Your task to perform on an android device: turn notification dots on Image 0: 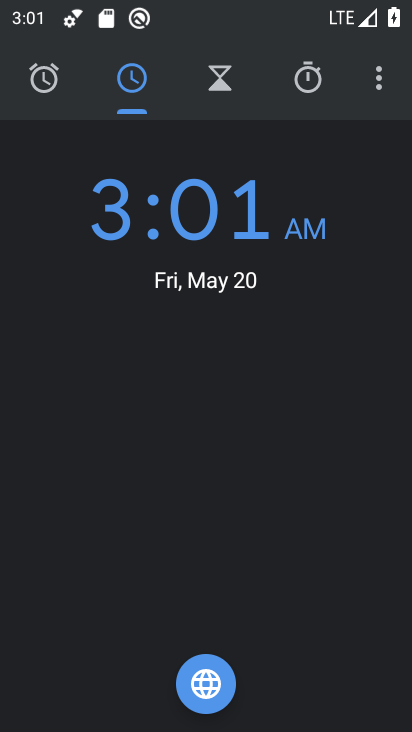
Step 0: press home button
Your task to perform on an android device: turn notification dots on Image 1: 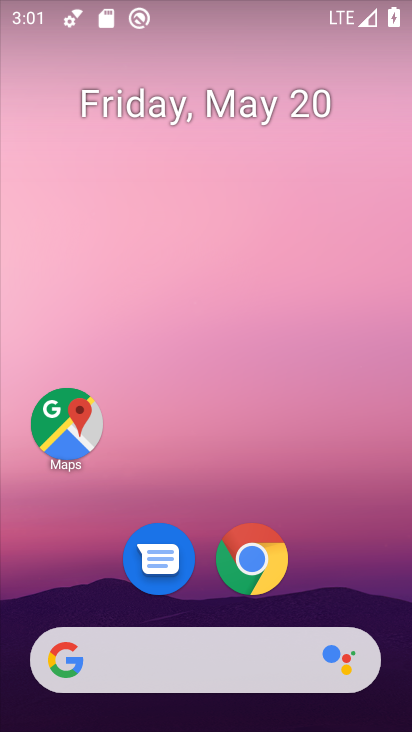
Step 1: drag from (323, 521) to (330, 42)
Your task to perform on an android device: turn notification dots on Image 2: 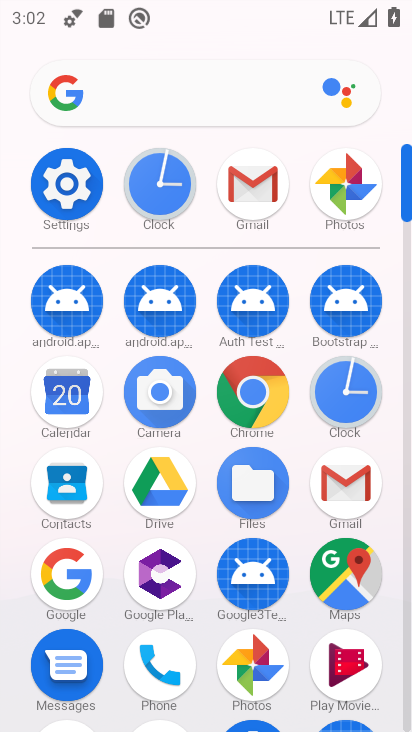
Step 2: click (67, 179)
Your task to perform on an android device: turn notification dots on Image 3: 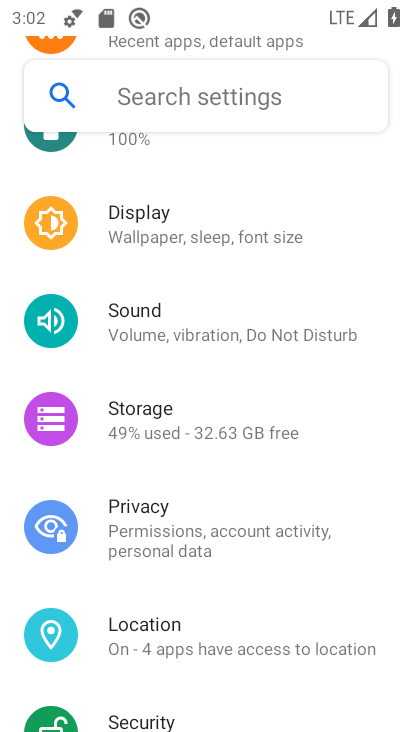
Step 3: drag from (211, 274) to (233, 575)
Your task to perform on an android device: turn notification dots on Image 4: 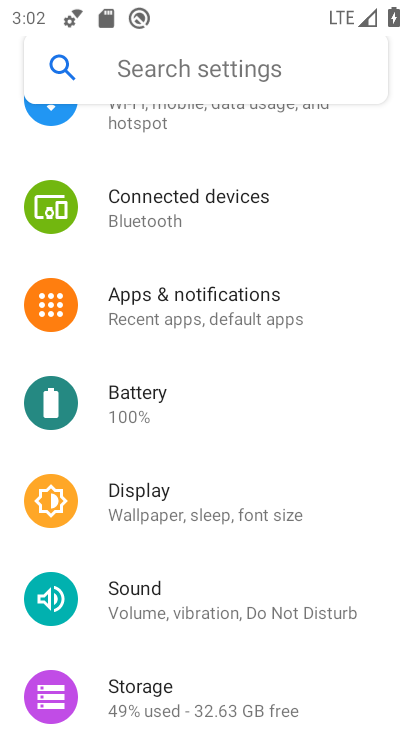
Step 4: click (229, 314)
Your task to perform on an android device: turn notification dots on Image 5: 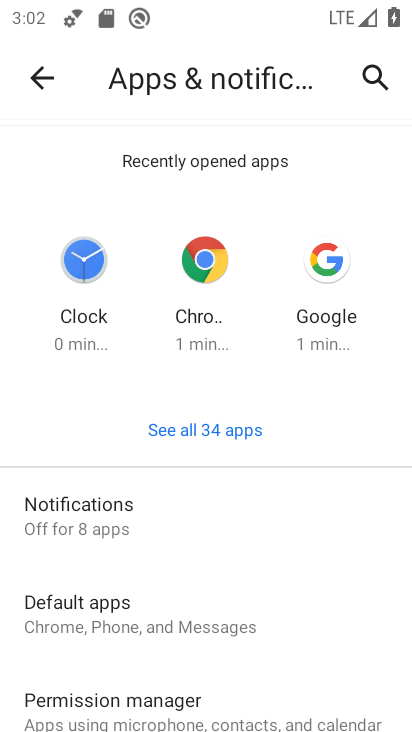
Step 5: click (172, 517)
Your task to perform on an android device: turn notification dots on Image 6: 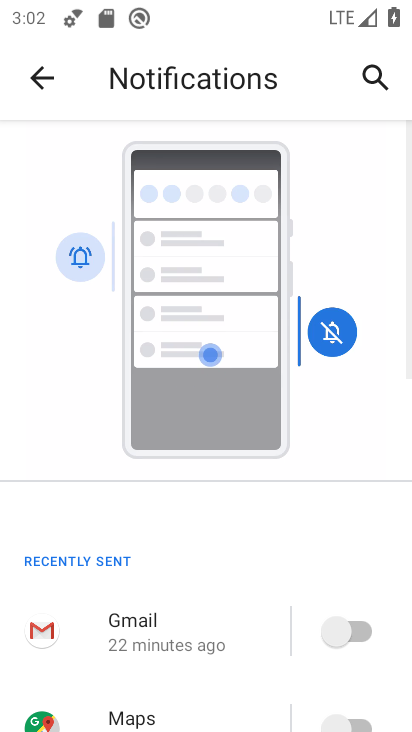
Step 6: drag from (187, 565) to (197, 145)
Your task to perform on an android device: turn notification dots on Image 7: 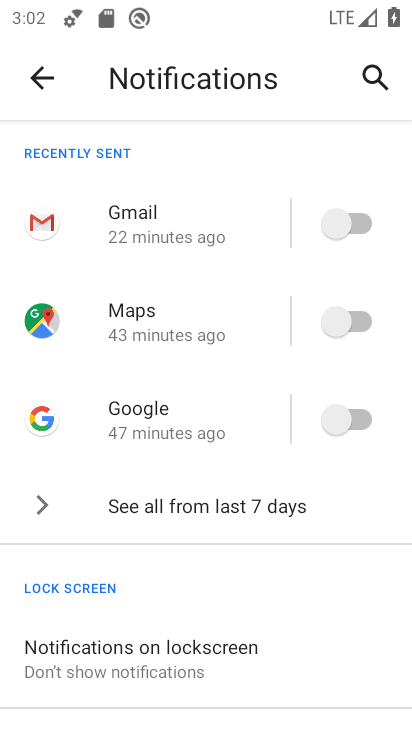
Step 7: drag from (222, 585) to (247, 259)
Your task to perform on an android device: turn notification dots on Image 8: 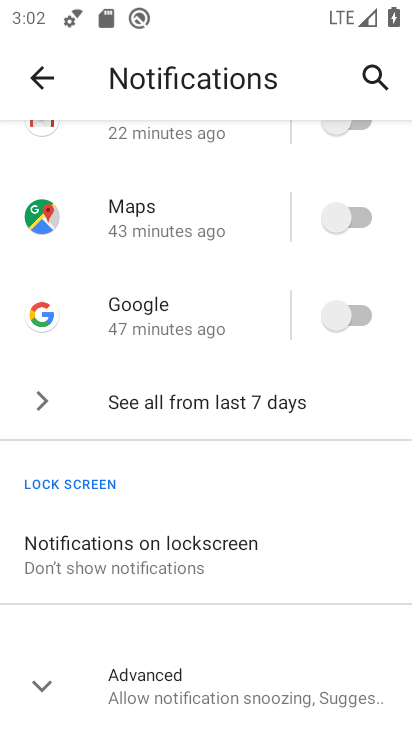
Step 8: click (45, 686)
Your task to perform on an android device: turn notification dots on Image 9: 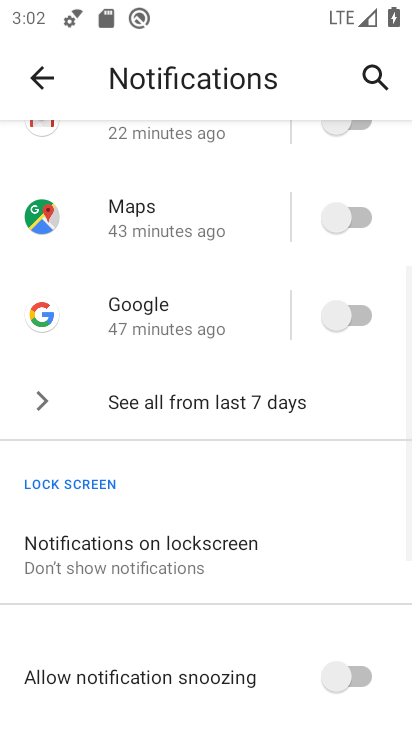
Step 9: drag from (244, 524) to (273, 186)
Your task to perform on an android device: turn notification dots on Image 10: 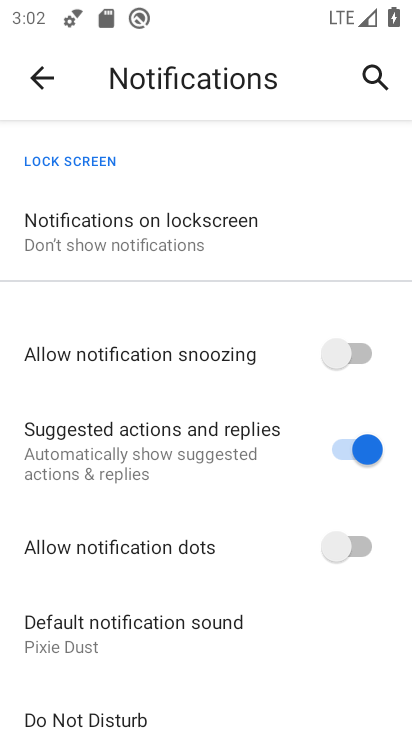
Step 10: click (347, 545)
Your task to perform on an android device: turn notification dots on Image 11: 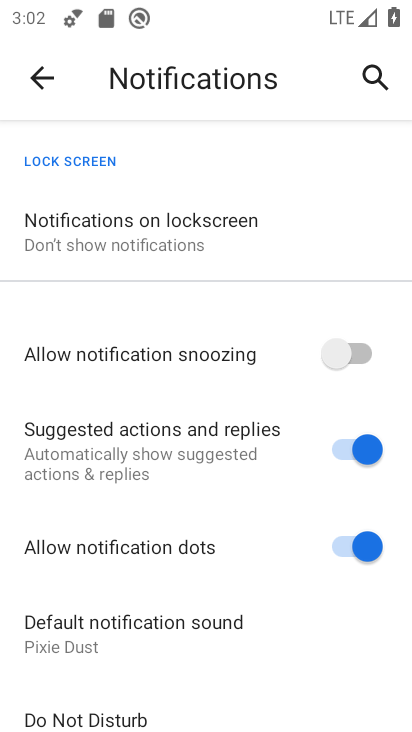
Step 11: task complete